Your task to perform on an android device: Go to Amazon Image 0: 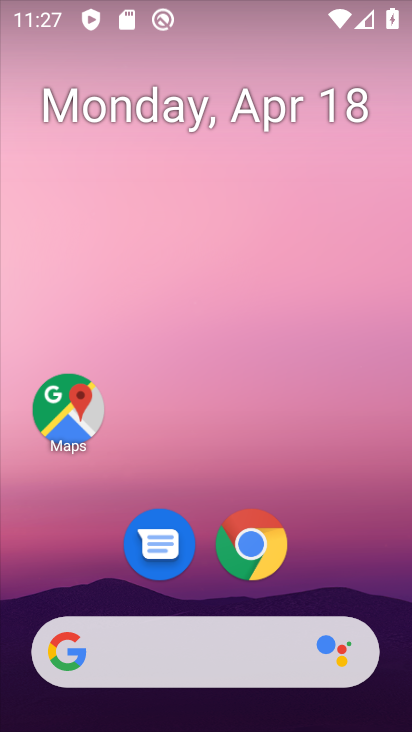
Step 0: click (259, 554)
Your task to perform on an android device: Go to Amazon Image 1: 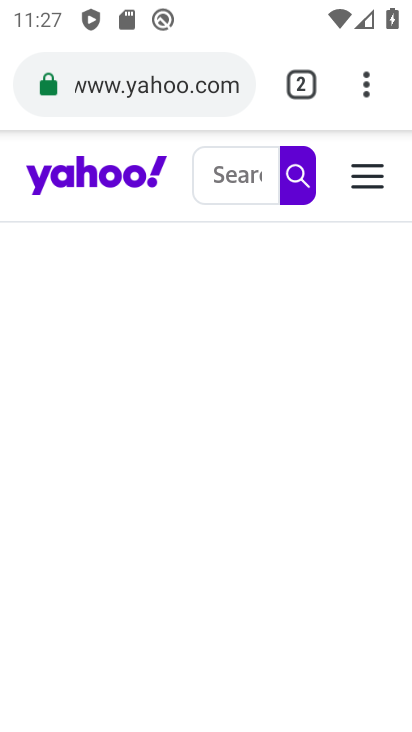
Step 1: click (366, 83)
Your task to perform on an android device: Go to Amazon Image 2: 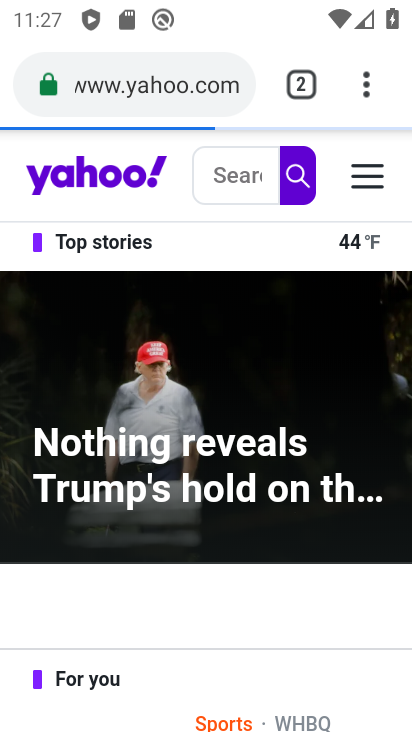
Step 2: click (366, 82)
Your task to perform on an android device: Go to Amazon Image 3: 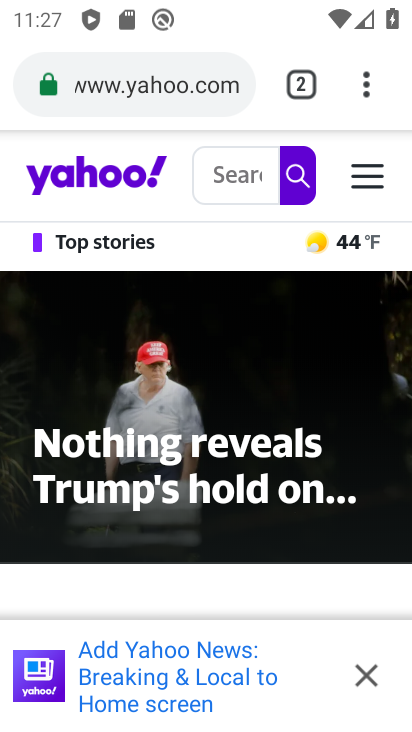
Step 3: click (366, 83)
Your task to perform on an android device: Go to Amazon Image 4: 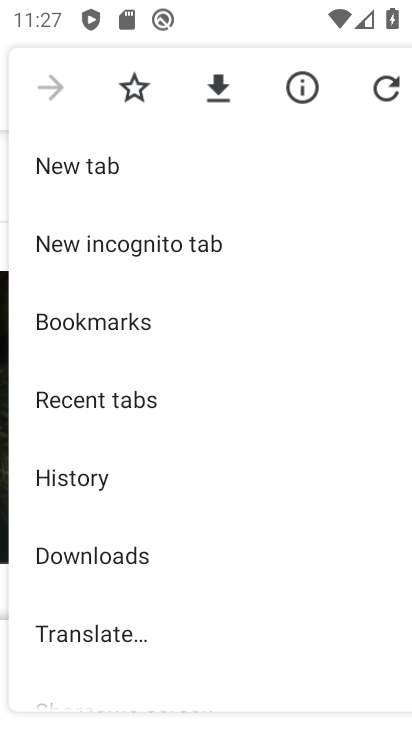
Step 4: click (76, 166)
Your task to perform on an android device: Go to Amazon Image 5: 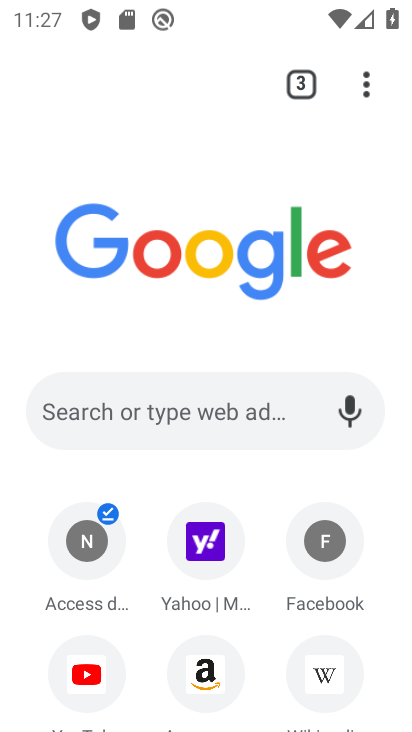
Step 5: click (208, 674)
Your task to perform on an android device: Go to Amazon Image 6: 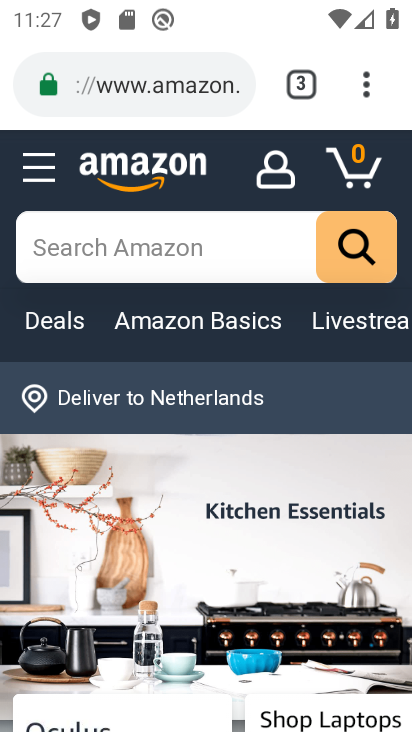
Step 6: task complete